Your task to perform on an android device: change the clock display to digital Image 0: 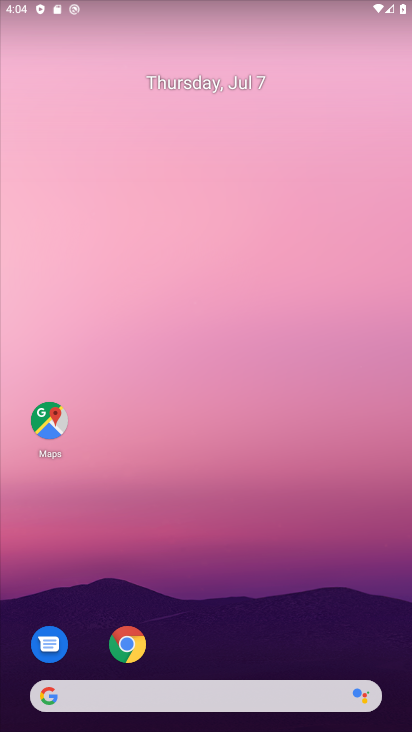
Step 0: drag from (227, 626) to (239, 58)
Your task to perform on an android device: change the clock display to digital Image 1: 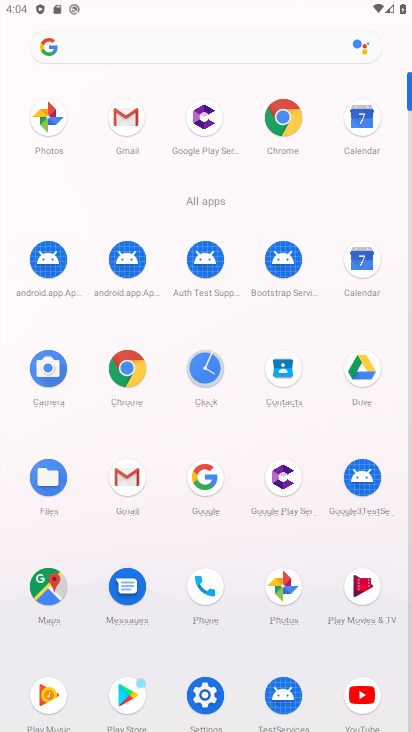
Step 1: click (199, 356)
Your task to perform on an android device: change the clock display to digital Image 2: 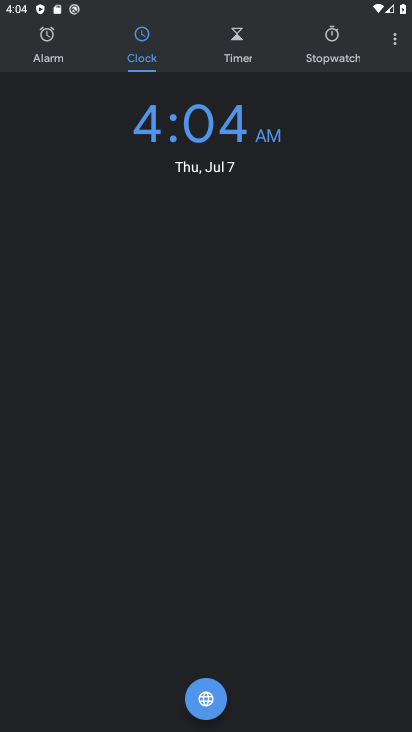
Step 2: click (391, 46)
Your task to perform on an android device: change the clock display to digital Image 3: 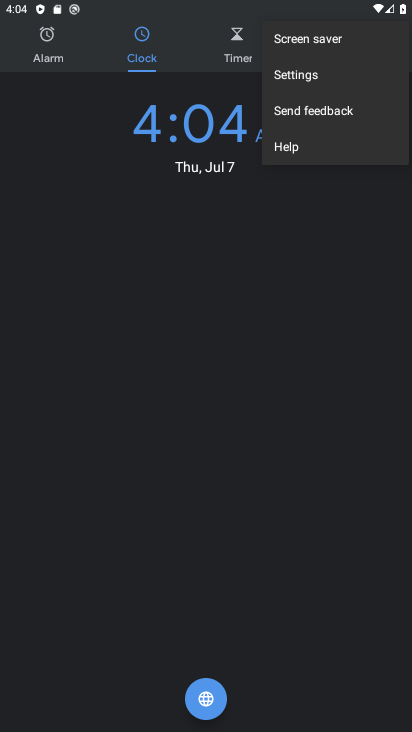
Step 3: click (314, 77)
Your task to perform on an android device: change the clock display to digital Image 4: 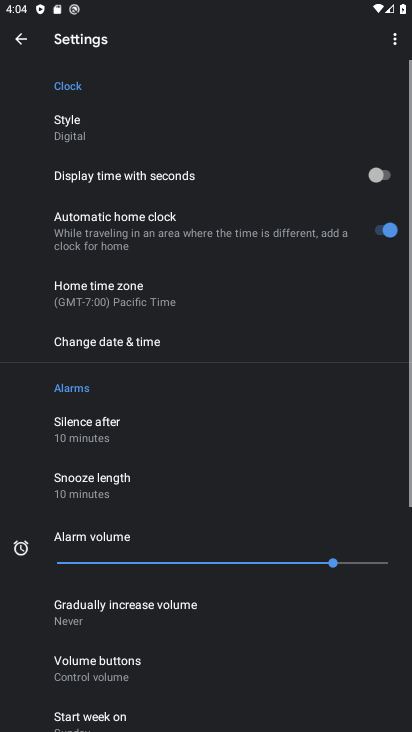
Step 4: click (129, 127)
Your task to perform on an android device: change the clock display to digital Image 5: 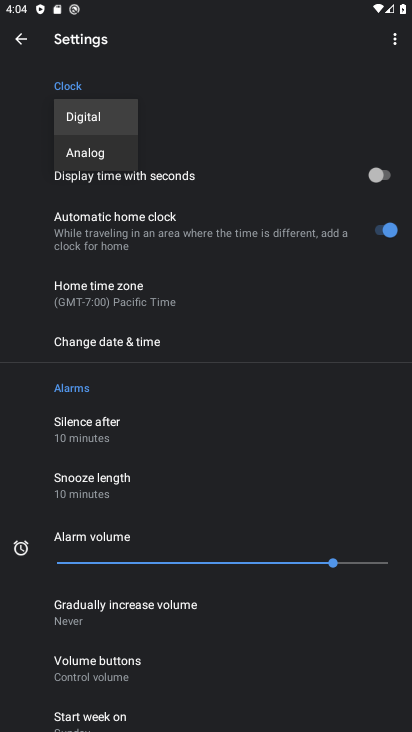
Step 5: task complete